Your task to perform on an android device: Show me recent news Image 0: 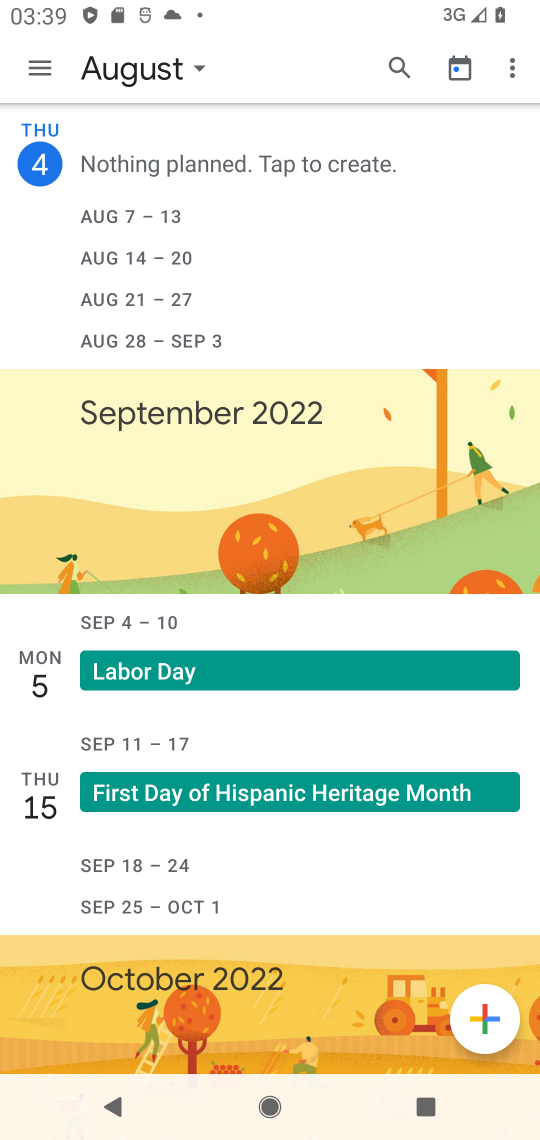
Step 0: press home button
Your task to perform on an android device: Show me recent news Image 1: 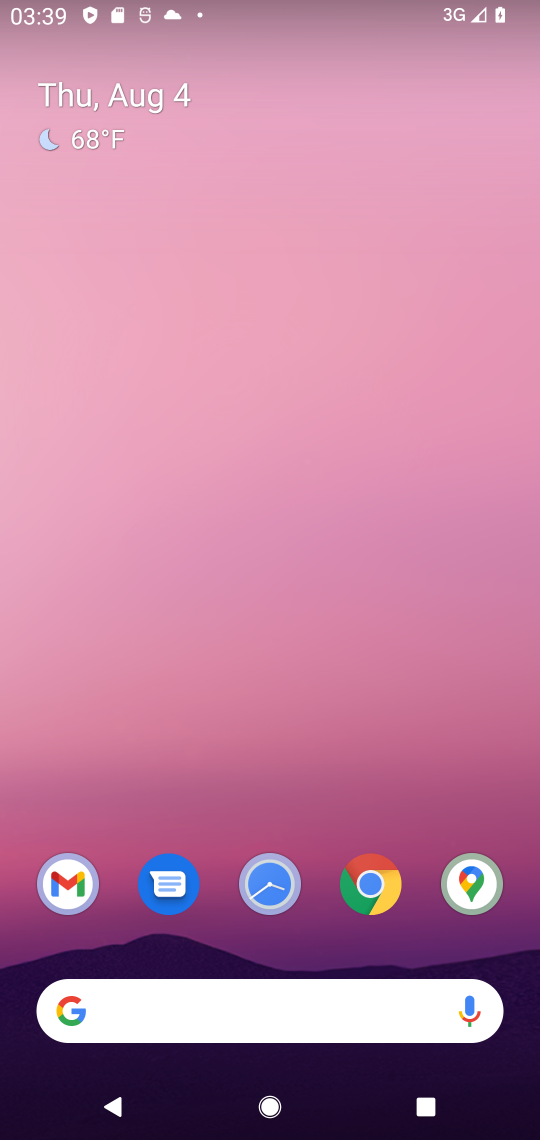
Step 1: task complete